Your task to perform on an android device: remove spam from my inbox in the gmail app Image 0: 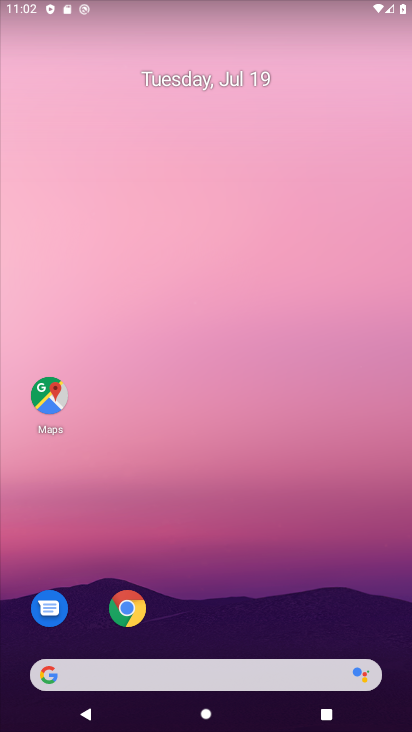
Step 0: press home button
Your task to perform on an android device: remove spam from my inbox in the gmail app Image 1: 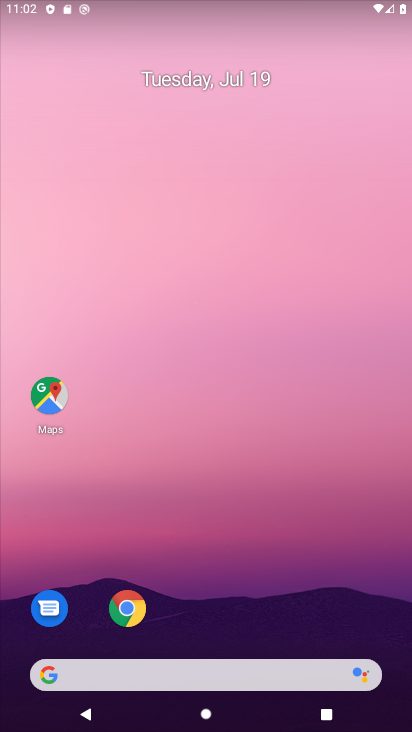
Step 1: drag from (278, 536) to (228, 110)
Your task to perform on an android device: remove spam from my inbox in the gmail app Image 2: 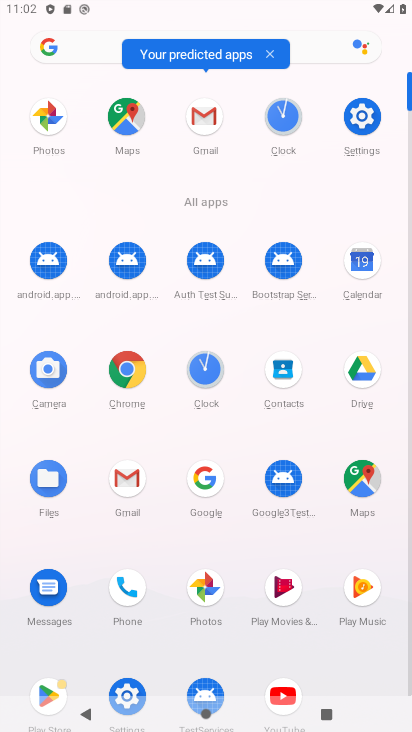
Step 2: click (209, 121)
Your task to perform on an android device: remove spam from my inbox in the gmail app Image 3: 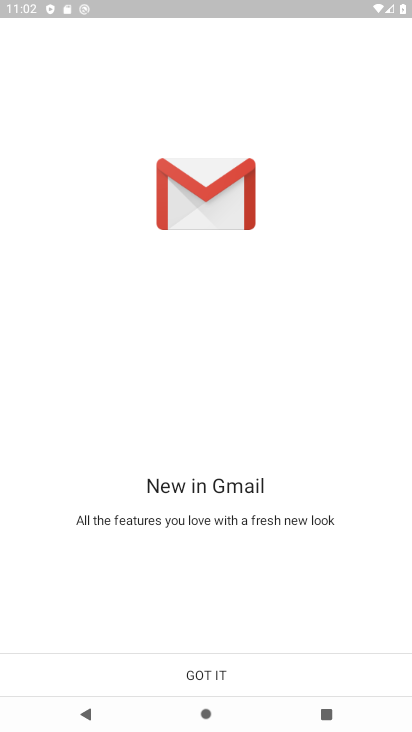
Step 3: click (203, 679)
Your task to perform on an android device: remove spam from my inbox in the gmail app Image 4: 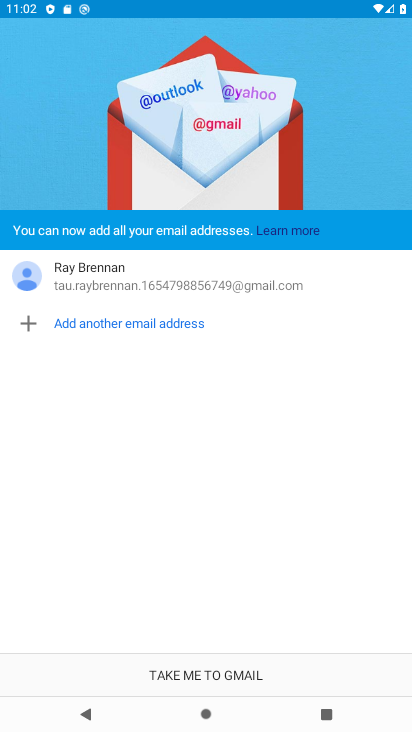
Step 4: click (209, 673)
Your task to perform on an android device: remove spam from my inbox in the gmail app Image 5: 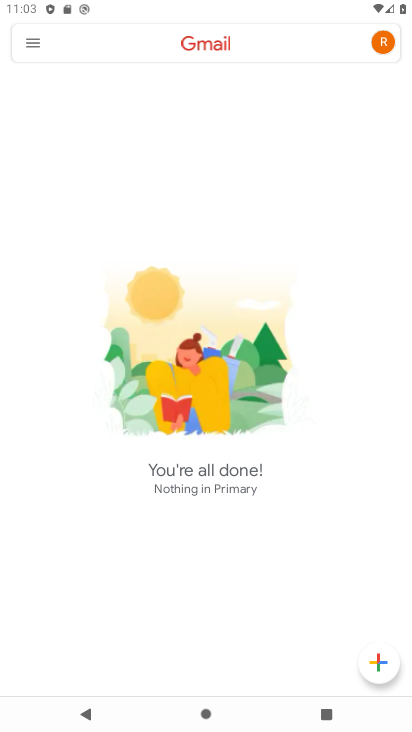
Step 5: click (29, 42)
Your task to perform on an android device: remove spam from my inbox in the gmail app Image 6: 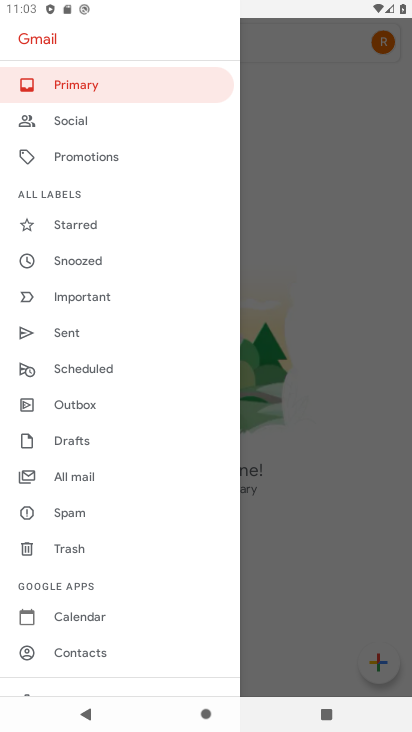
Step 6: click (79, 513)
Your task to perform on an android device: remove spam from my inbox in the gmail app Image 7: 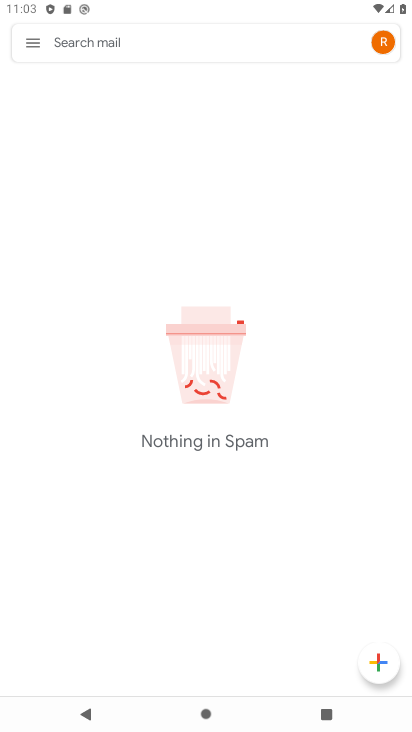
Step 7: click (28, 36)
Your task to perform on an android device: remove spam from my inbox in the gmail app Image 8: 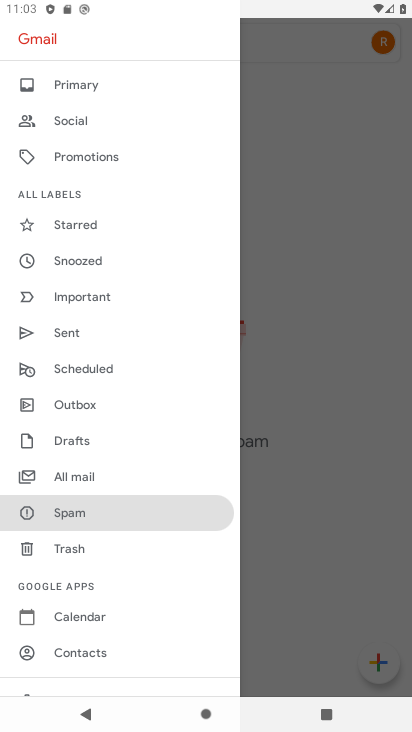
Step 8: task complete